Your task to perform on an android device: delete browsing data in the chrome app Image 0: 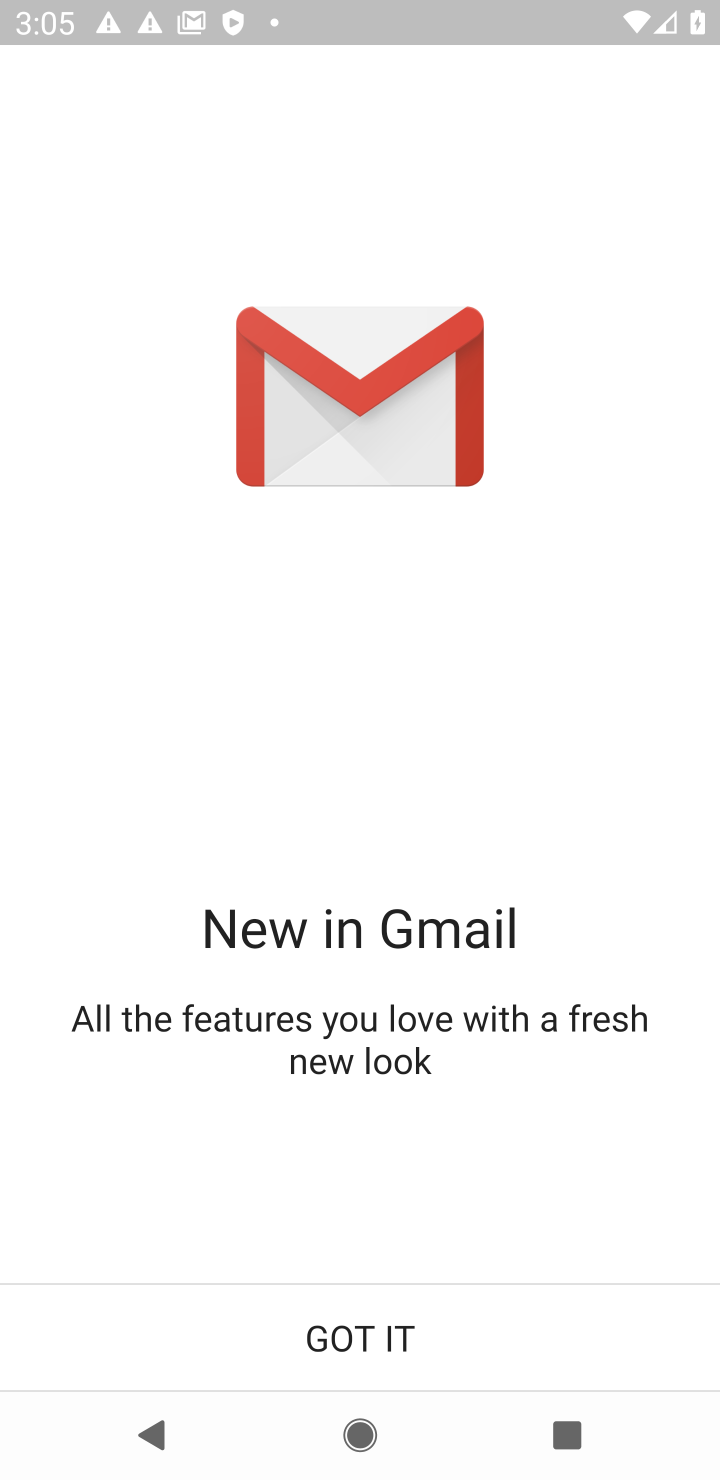
Step 0: press home button
Your task to perform on an android device: delete browsing data in the chrome app Image 1: 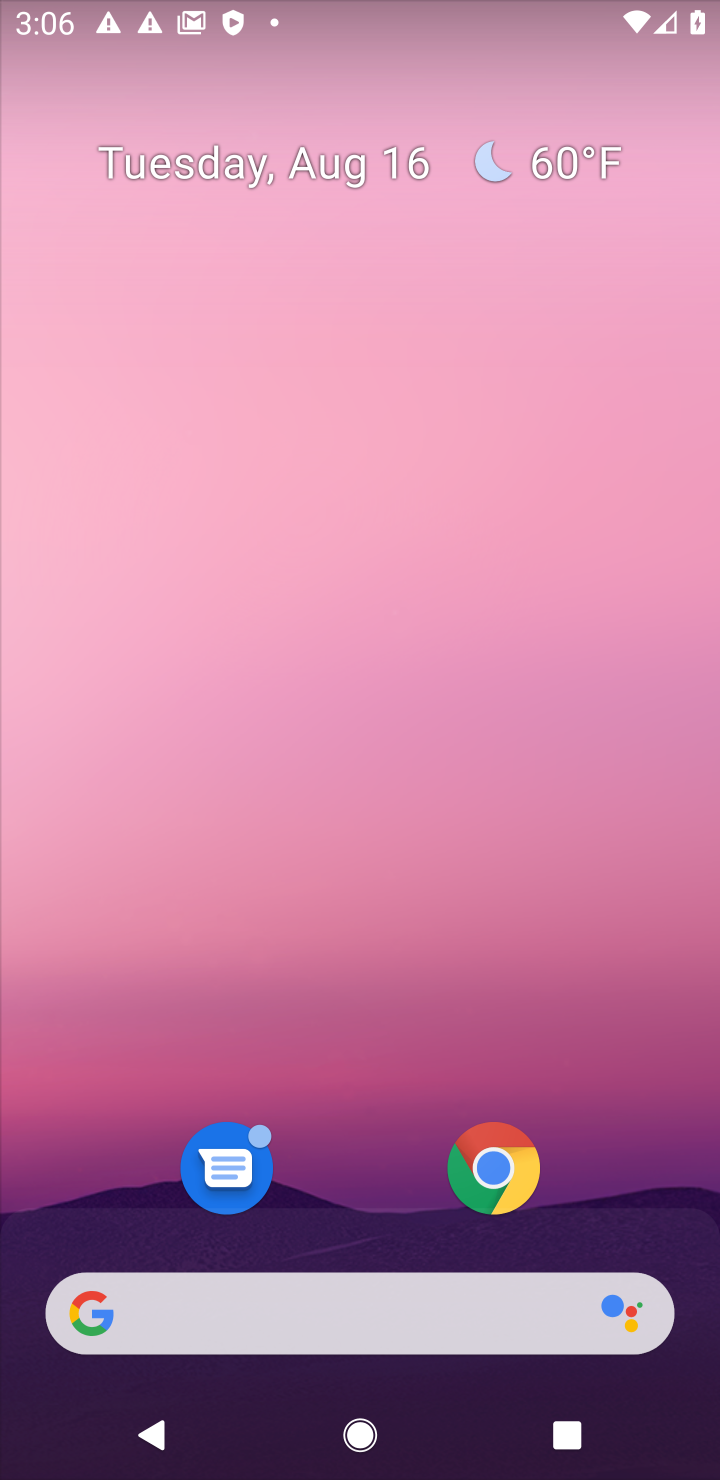
Step 1: click (498, 1161)
Your task to perform on an android device: delete browsing data in the chrome app Image 2: 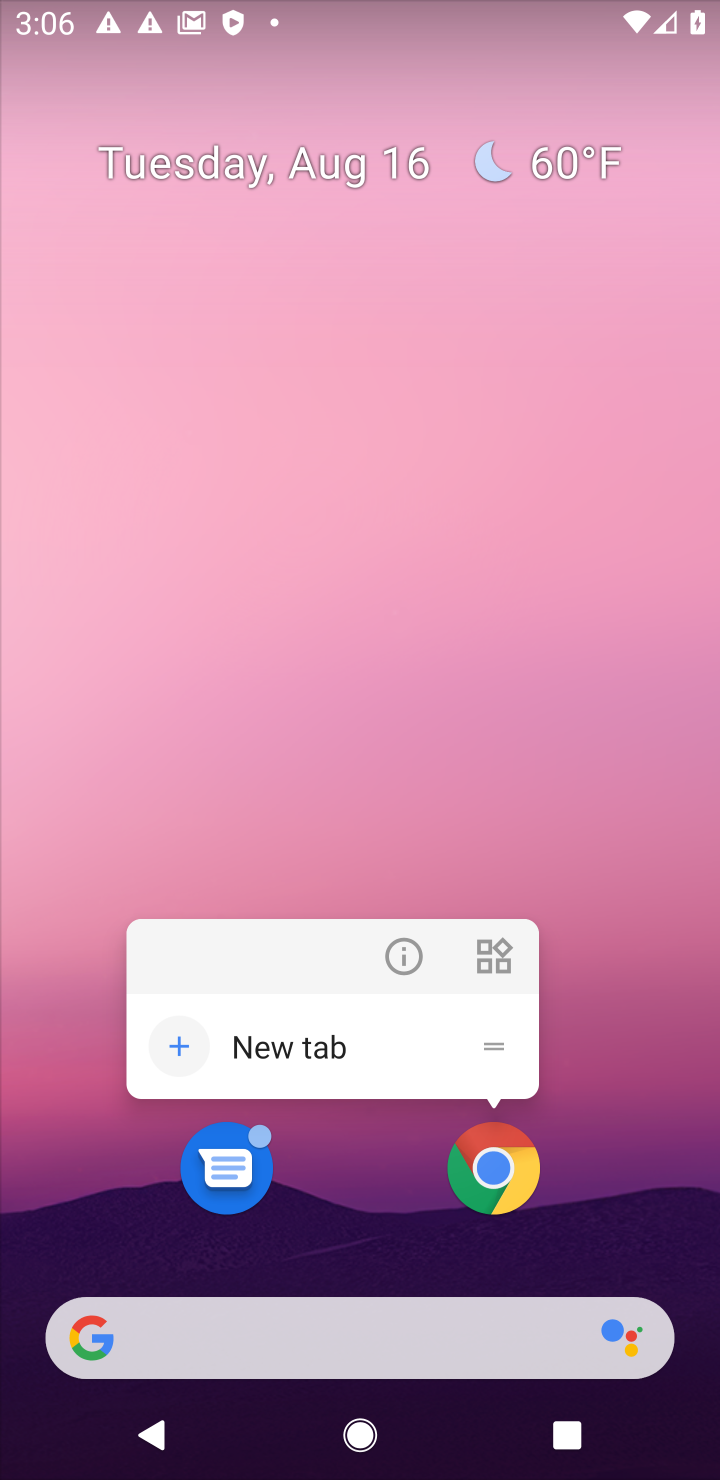
Step 2: click (486, 1168)
Your task to perform on an android device: delete browsing data in the chrome app Image 3: 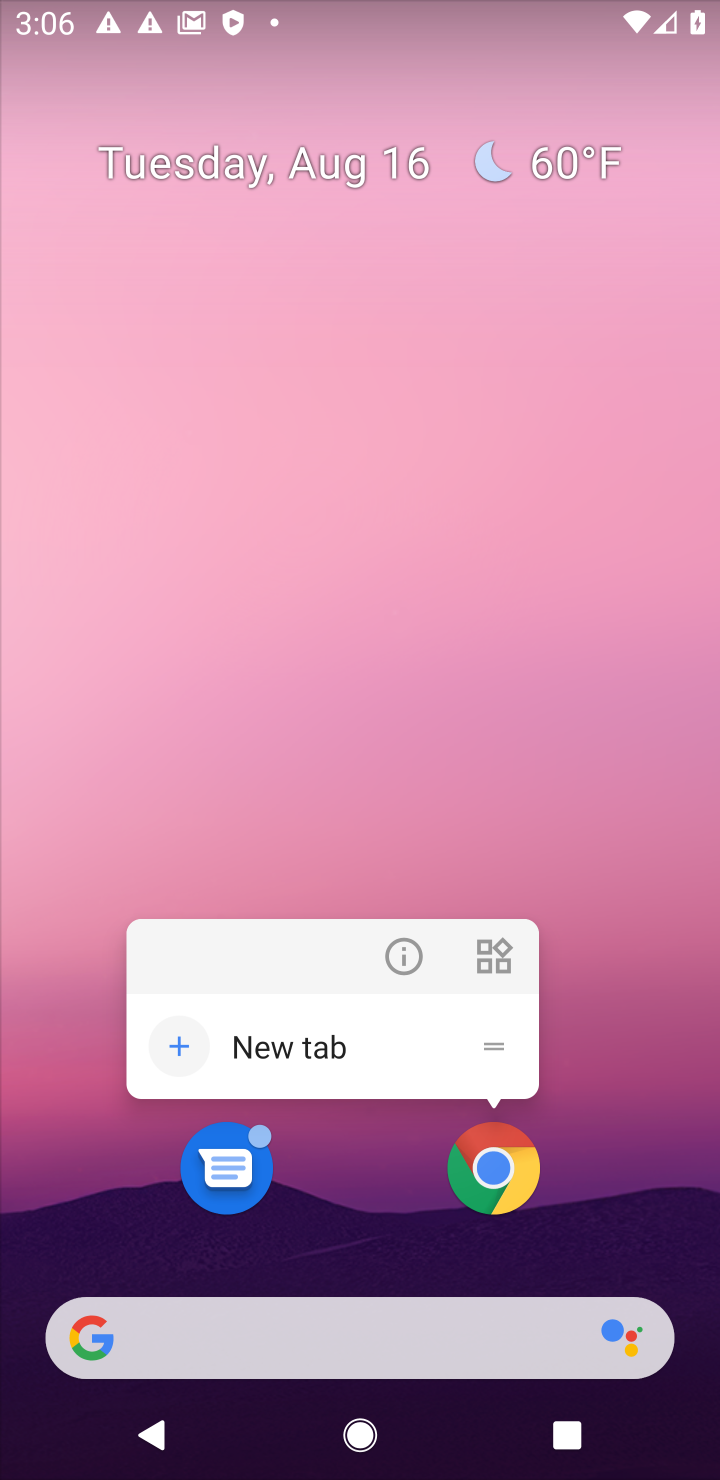
Step 3: click (486, 1172)
Your task to perform on an android device: delete browsing data in the chrome app Image 4: 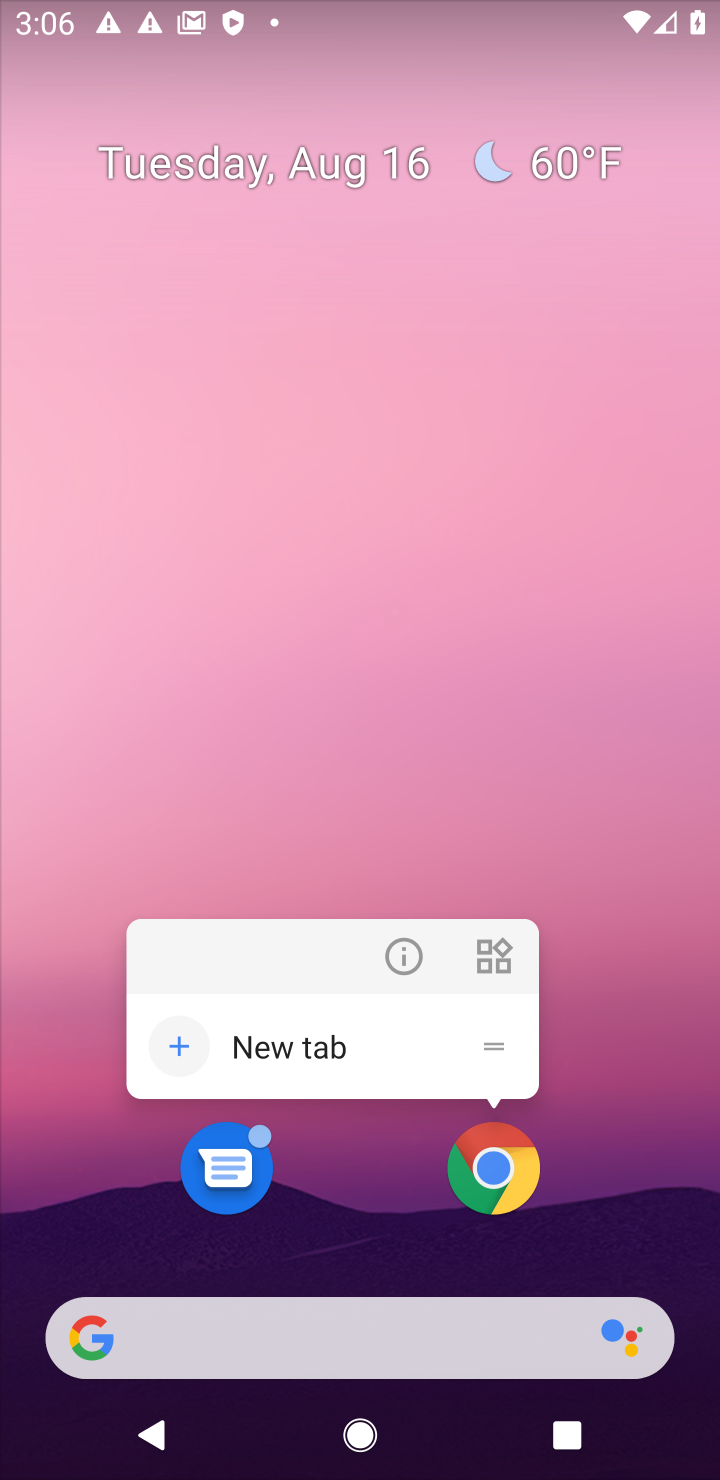
Step 4: click (486, 1177)
Your task to perform on an android device: delete browsing data in the chrome app Image 5: 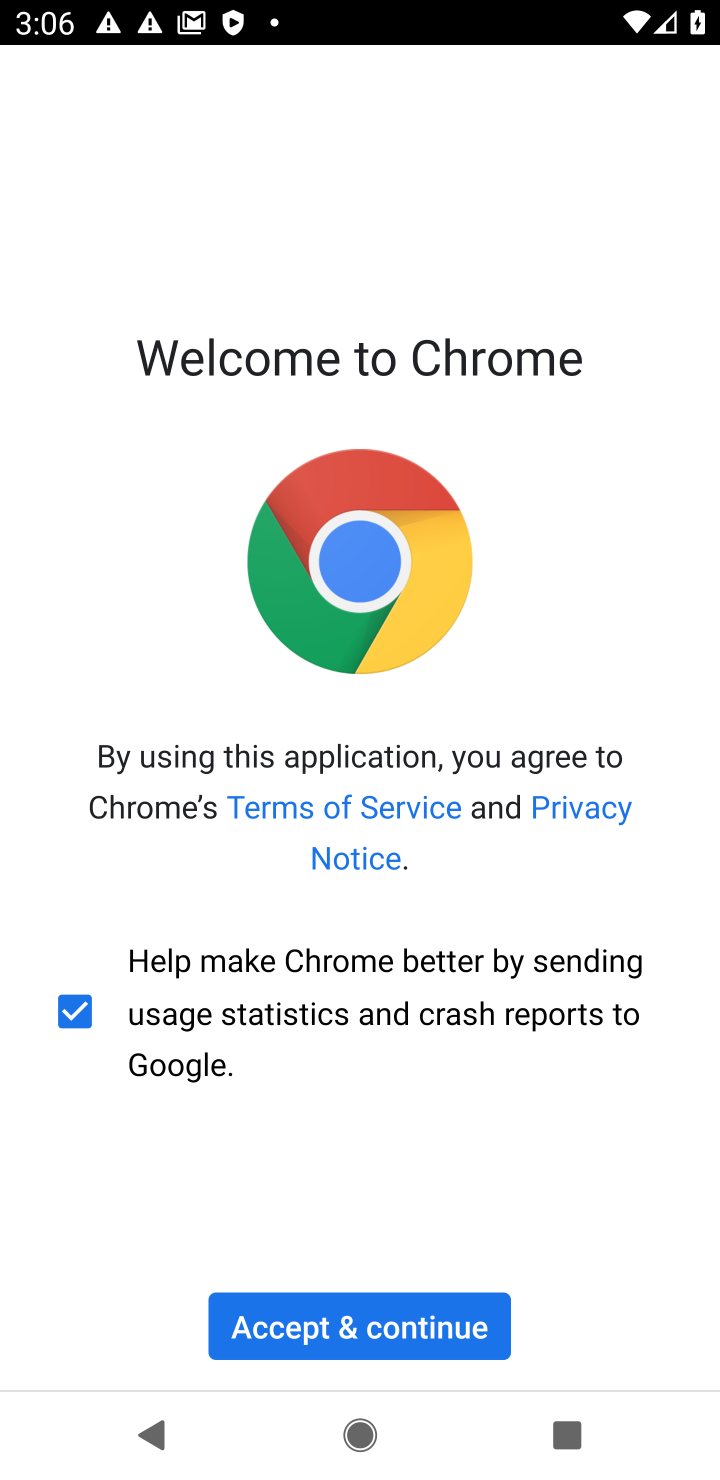
Step 5: click (438, 1320)
Your task to perform on an android device: delete browsing data in the chrome app Image 6: 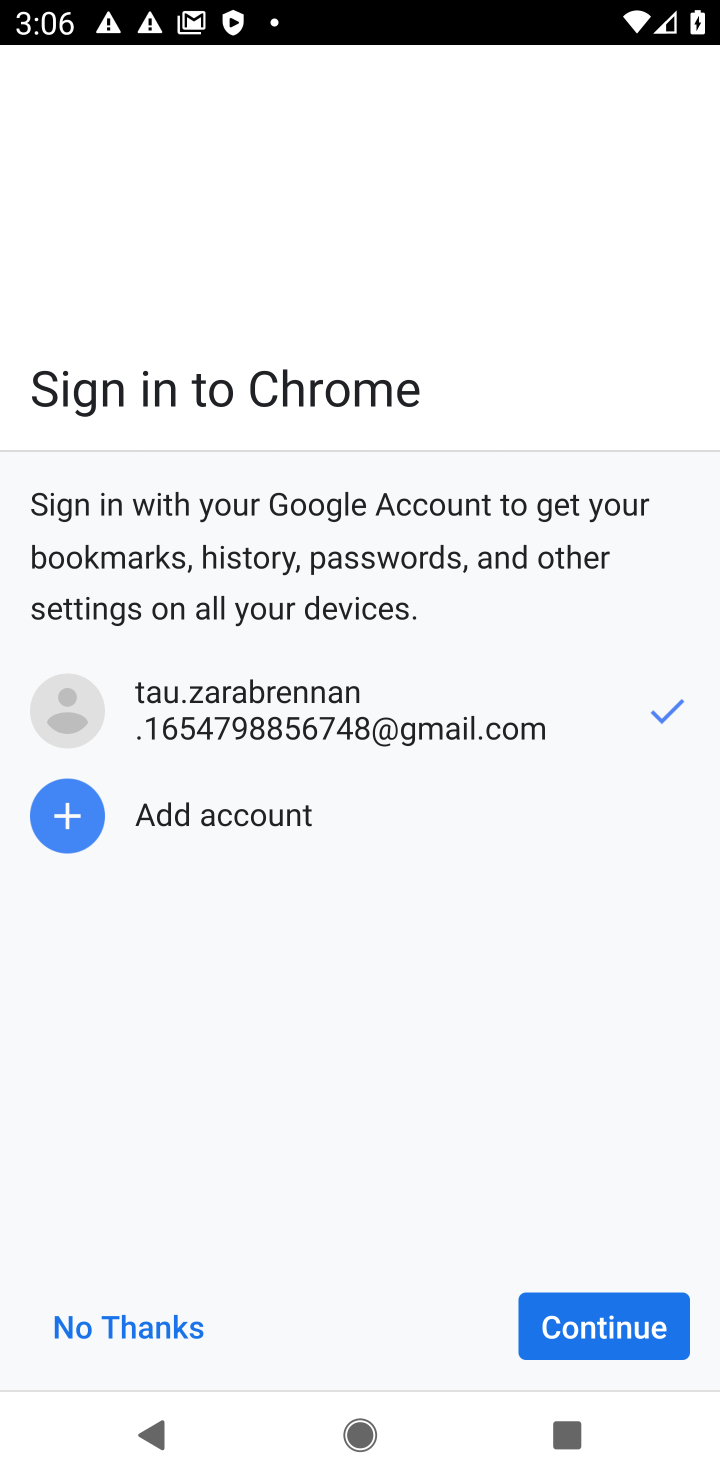
Step 6: click (620, 1321)
Your task to perform on an android device: delete browsing data in the chrome app Image 7: 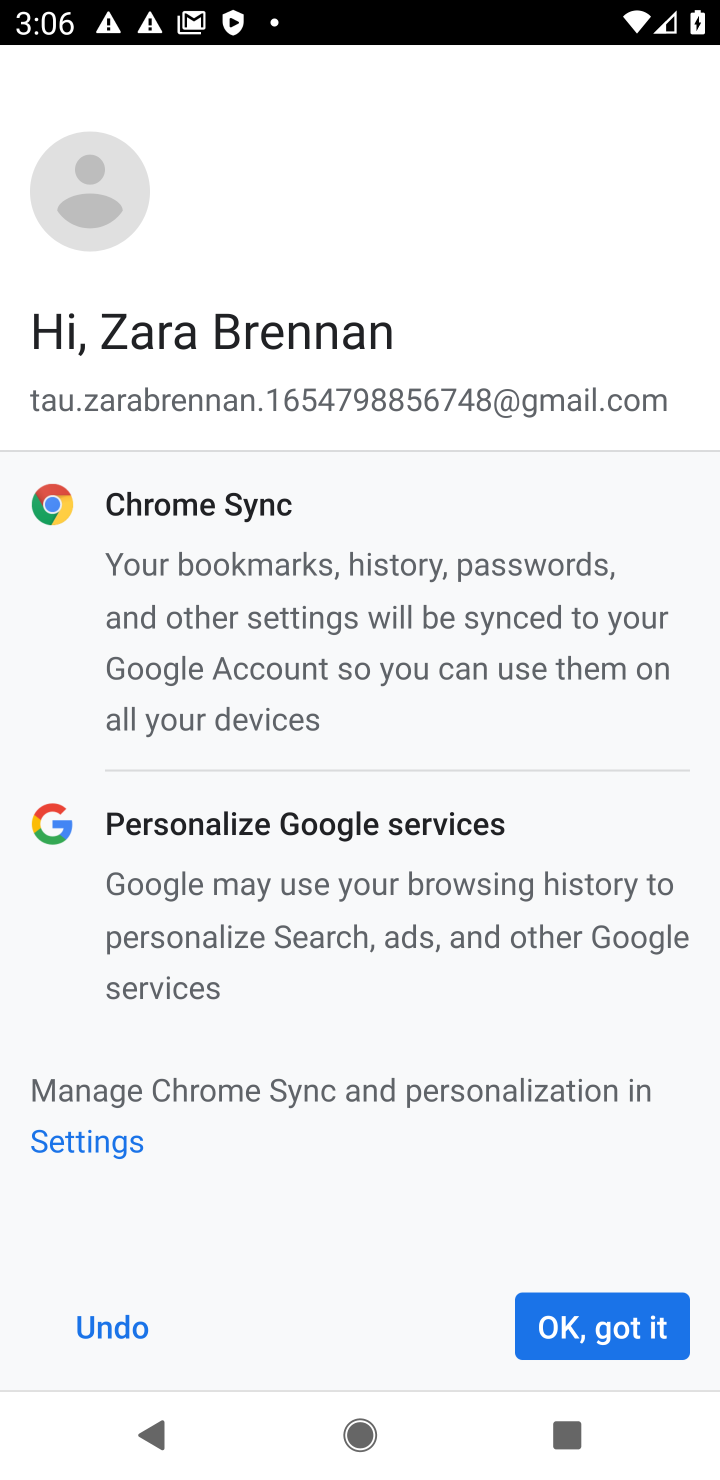
Step 7: click (589, 1323)
Your task to perform on an android device: delete browsing data in the chrome app Image 8: 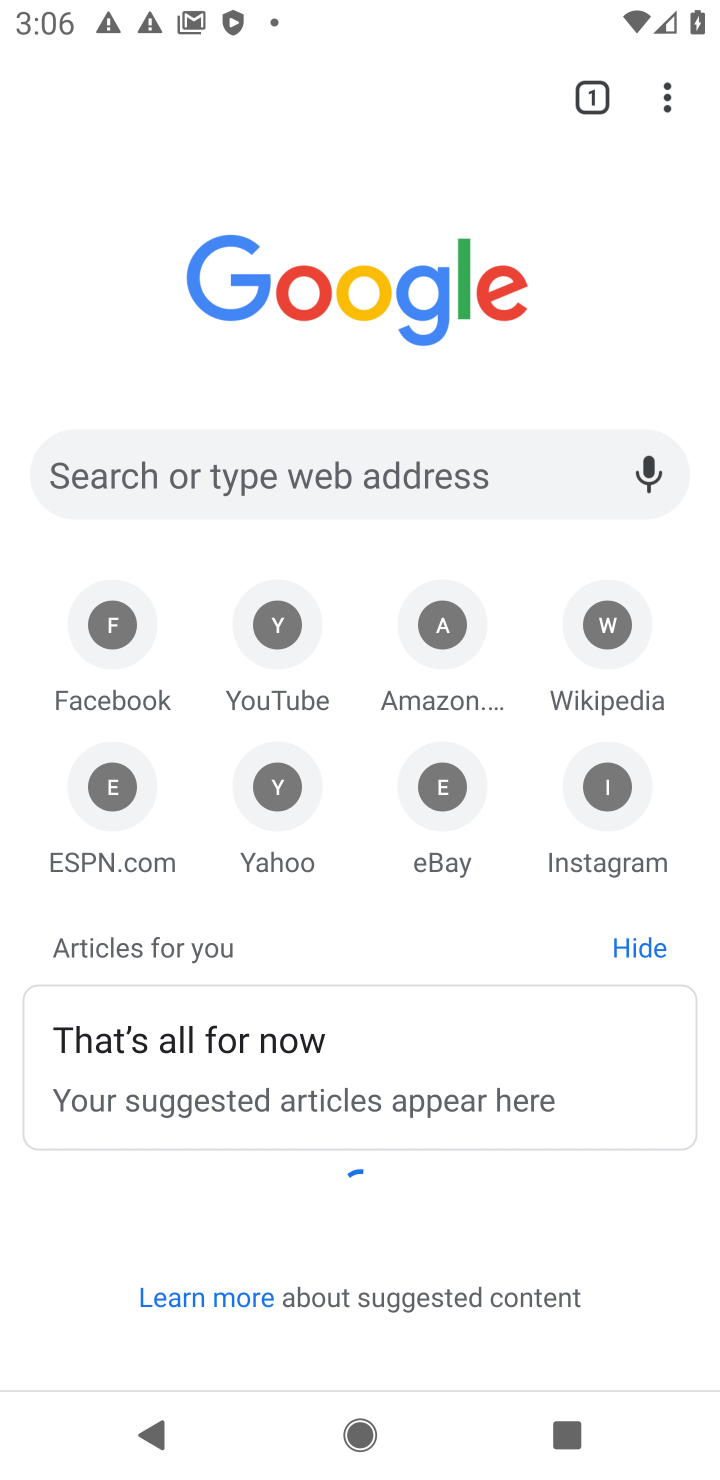
Step 8: drag from (669, 89) to (399, 825)
Your task to perform on an android device: delete browsing data in the chrome app Image 9: 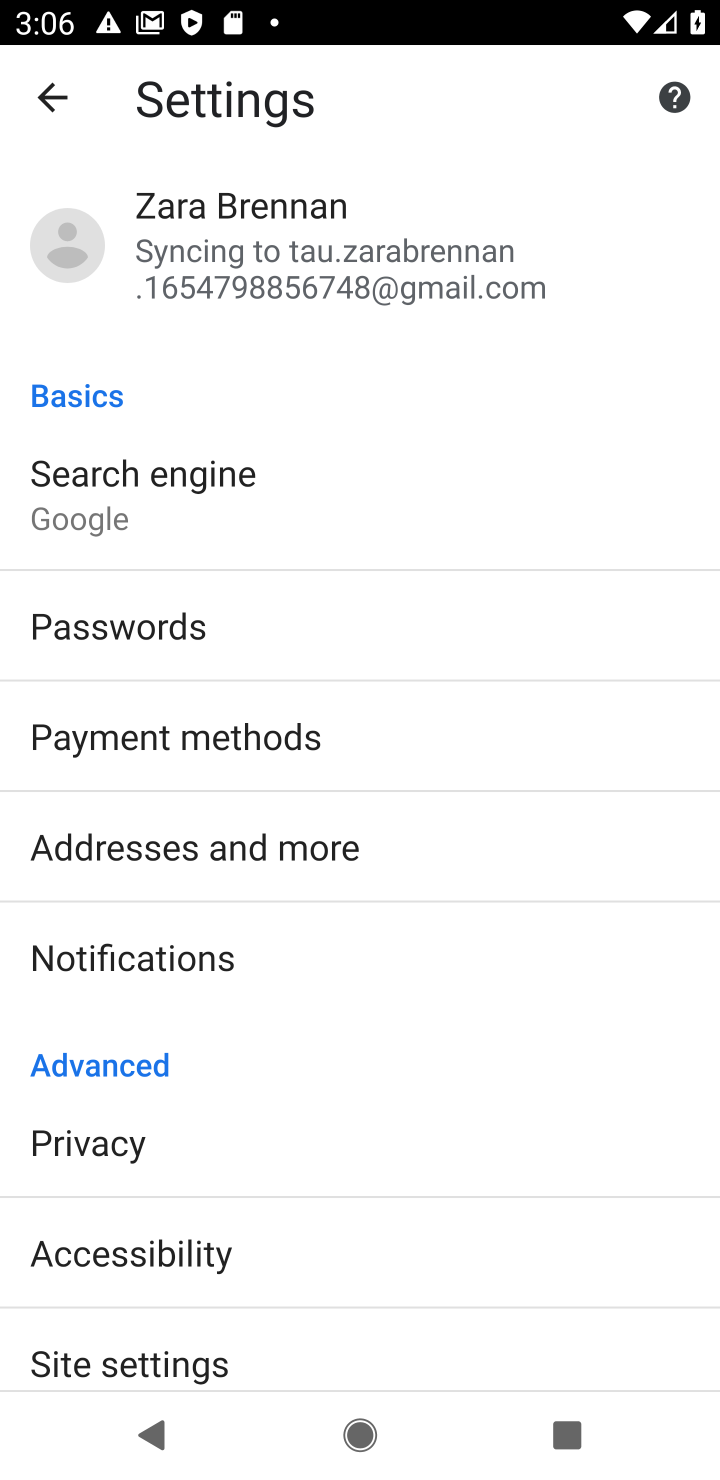
Step 9: click (94, 1138)
Your task to perform on an android device: delete browsing data in the chrome app Image 10: 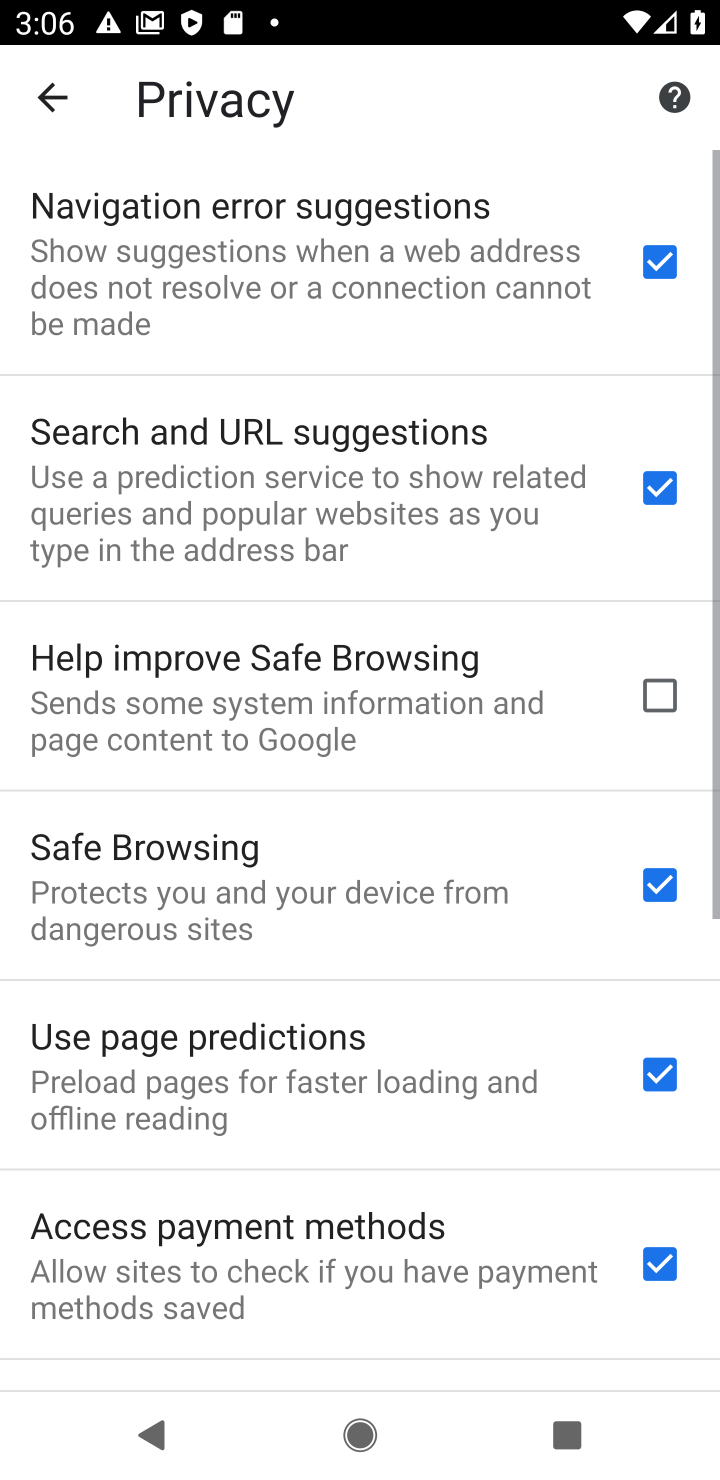
Step 10: drag from (394, 1318) to (423, 181)
Your task to perform on an android device: delete browsing data in the chrome app Image 11: 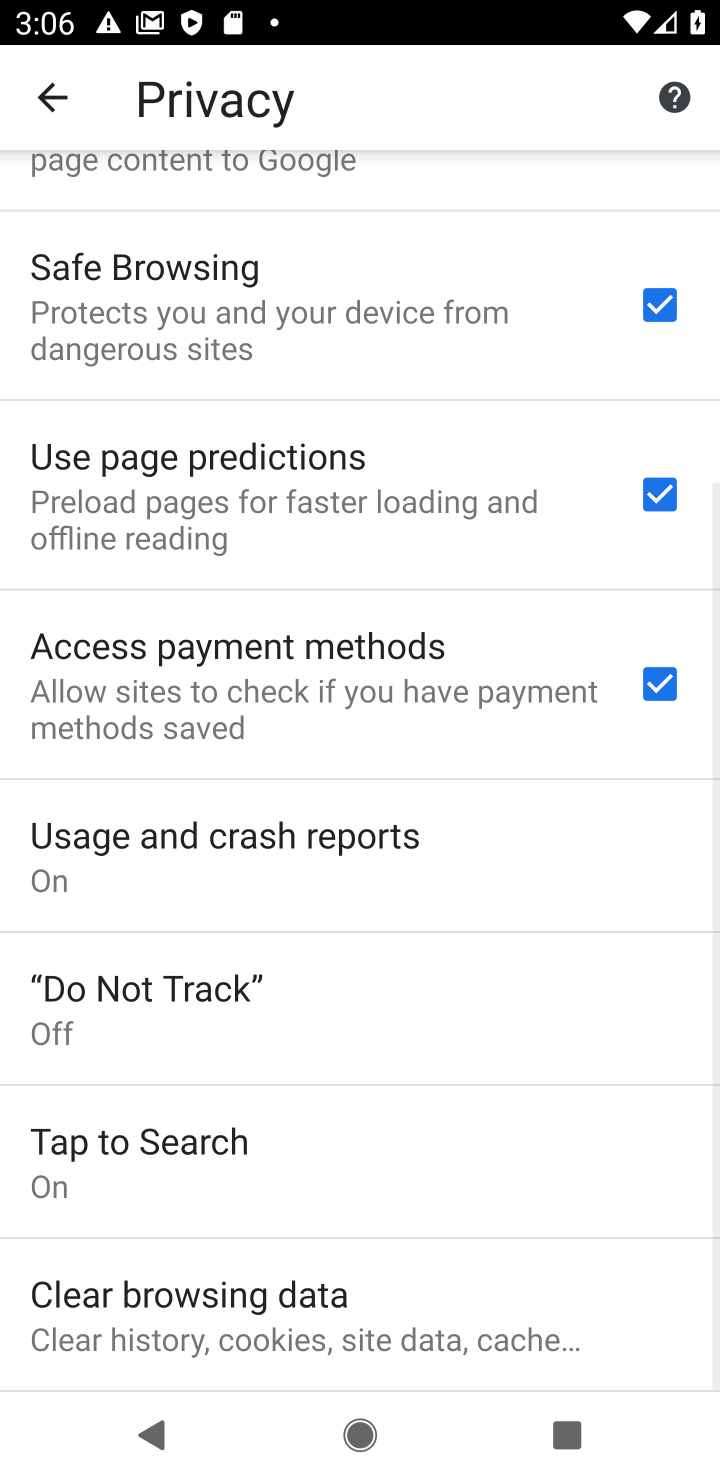
Step 11: drag from (370, 626) to (437, 159)
Your task to perform on an android device: delete browsing data in the chrome app Image 12: 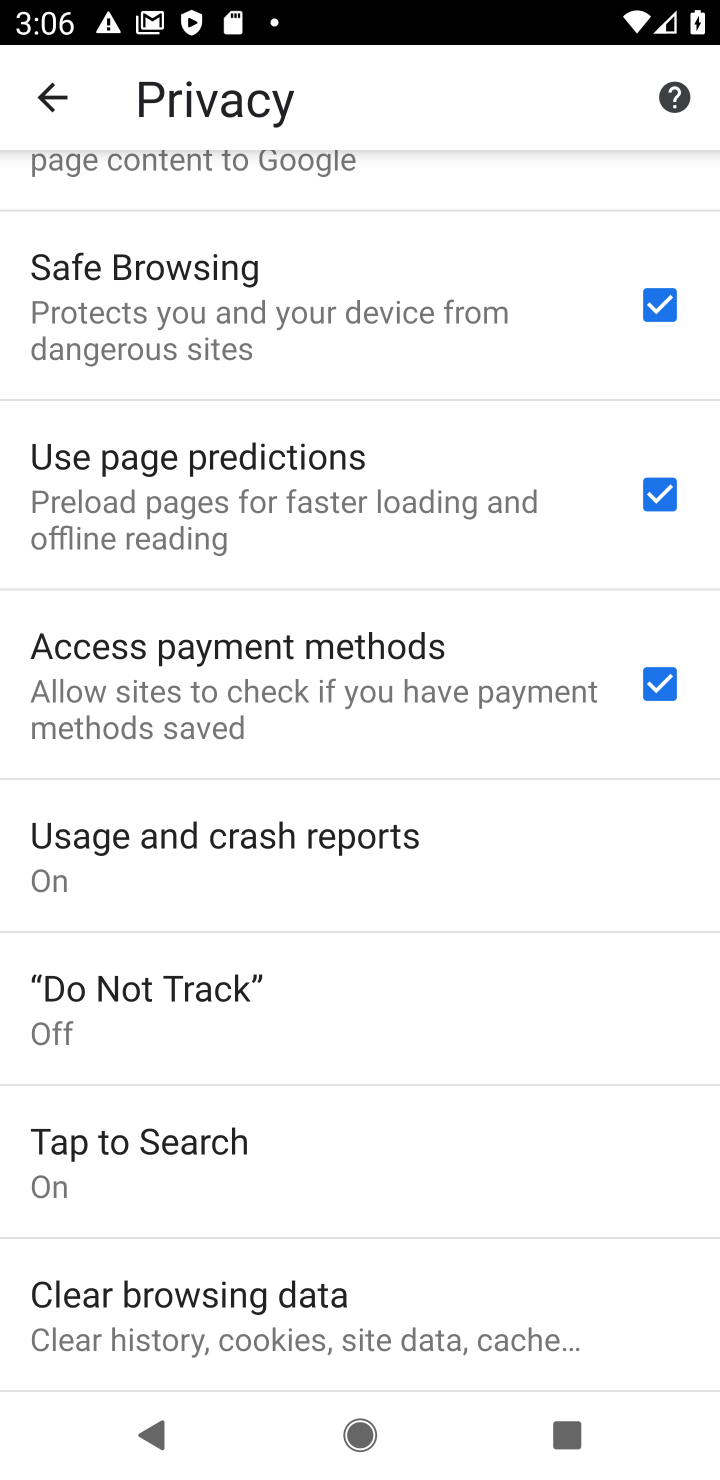
Step 12: click (262, 1324)
Your task to perform on an android device: delete browsing data in the chrome app Image 13: 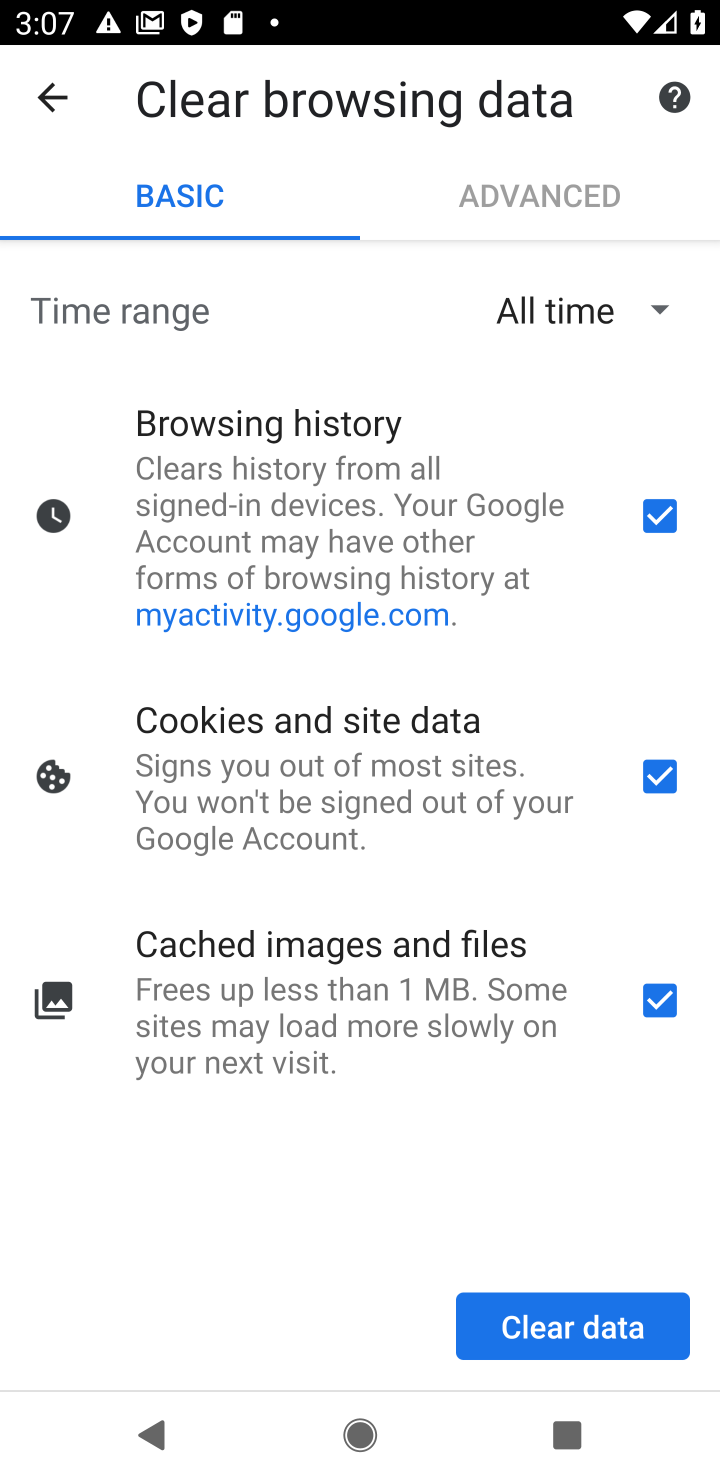
Step 13: click (571, 1321)
Your task to perform on an android device: delete browsing data in the chrome app Image 14: 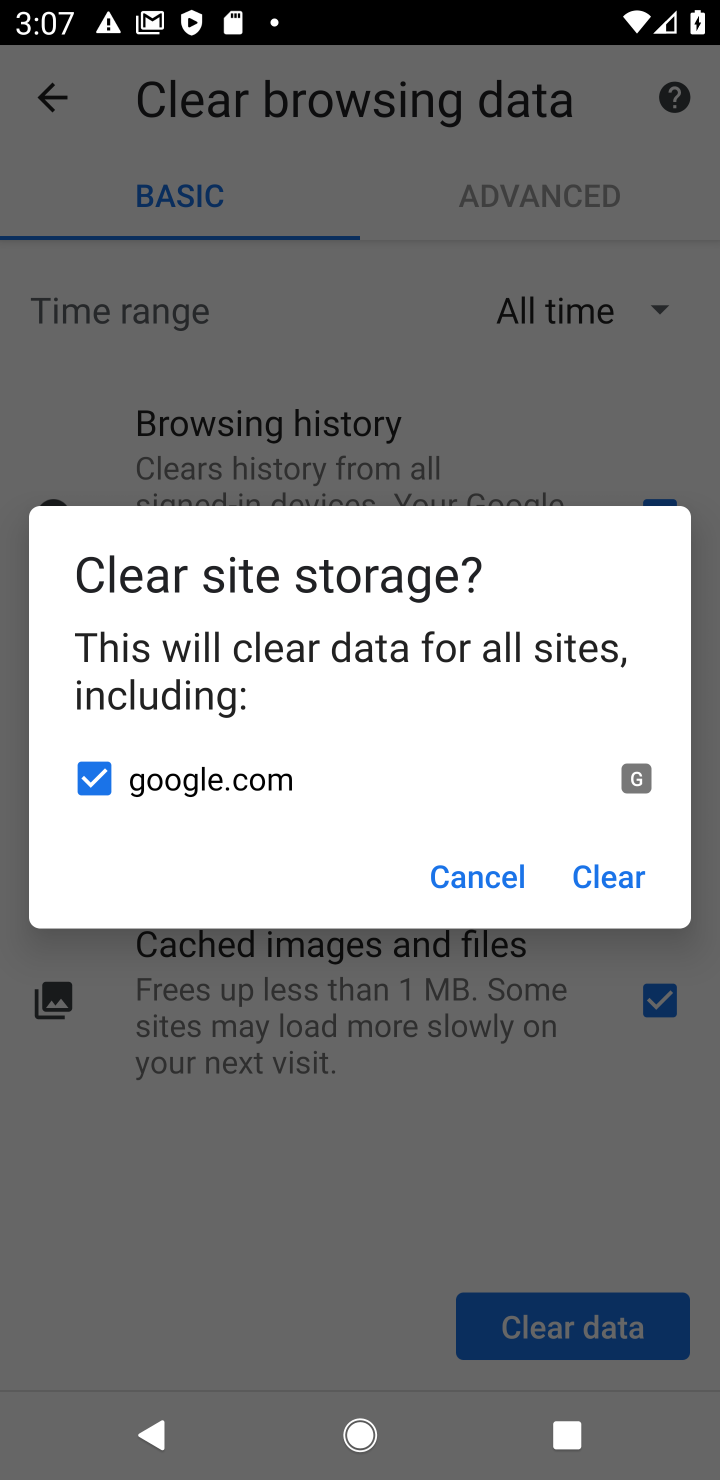
Step 14: click (601, 880)
Your task to perform on an android device: delete browsing data in the chrome app Image 15: 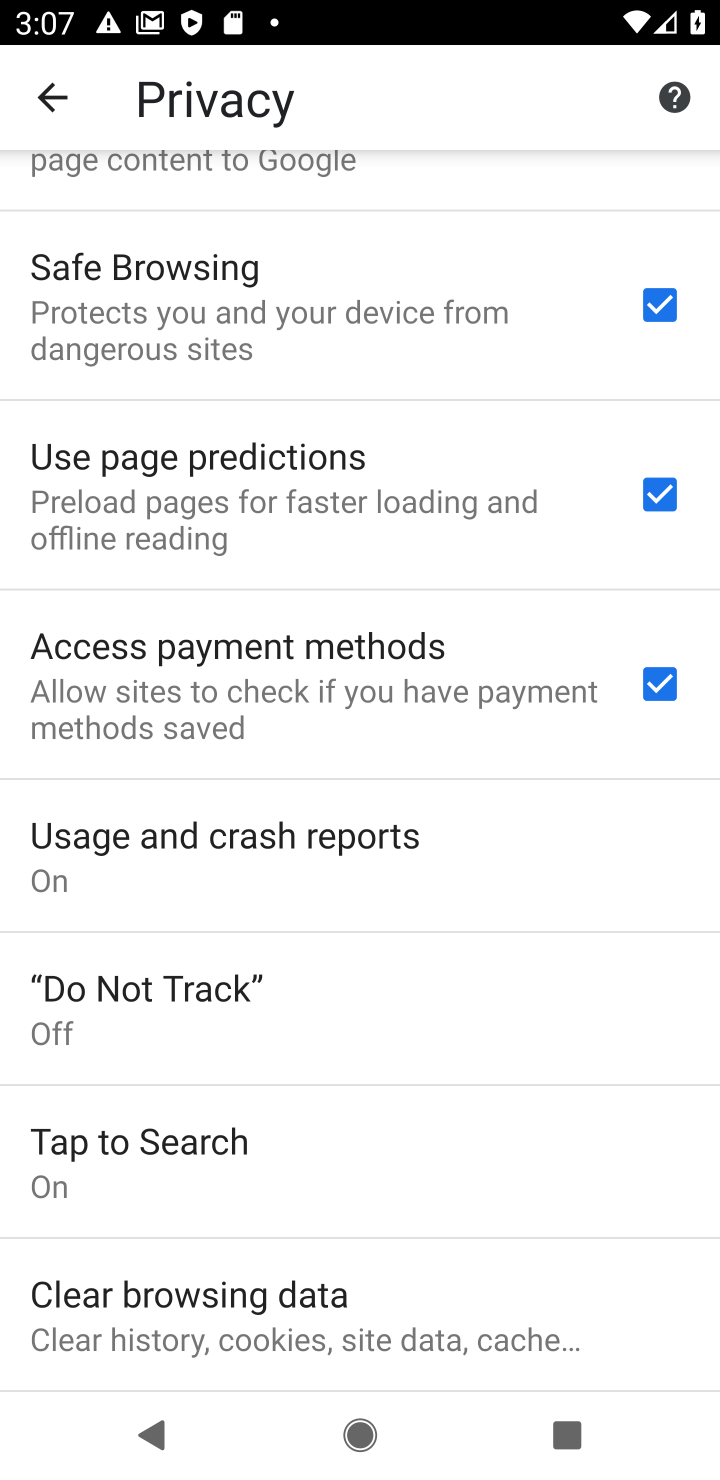
Step 15: task complete